Your task to perform on an android device: What is the recent news? Image 0: 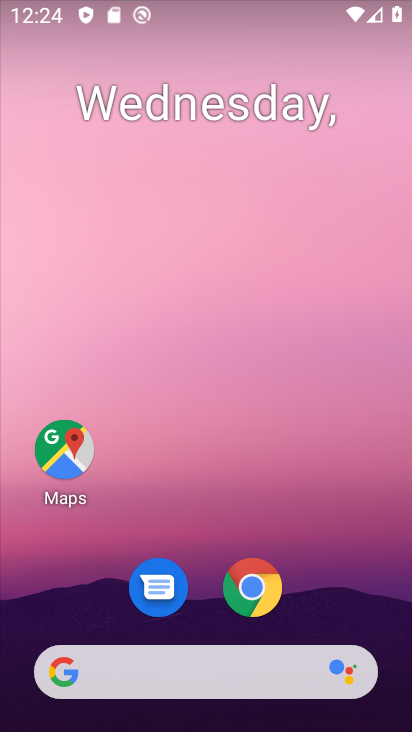
Step 0: drag from (302, 607) to (224, 332)
Your task to perform on an android device: What is the recent news? Image 1: 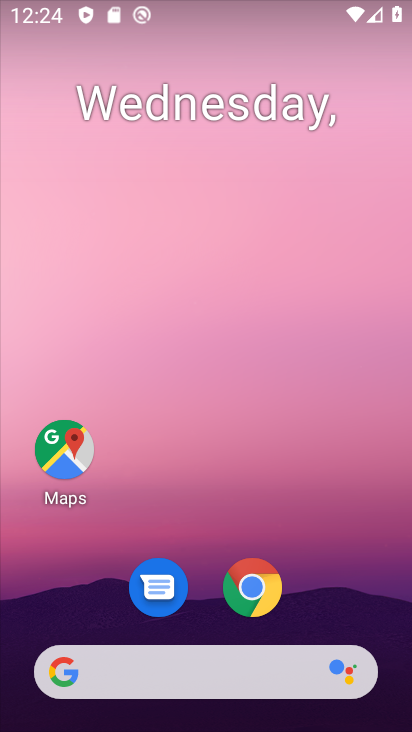
Step 1: click (233, 677)
Your task to perform on an android device: What is the recent news? Image 2: 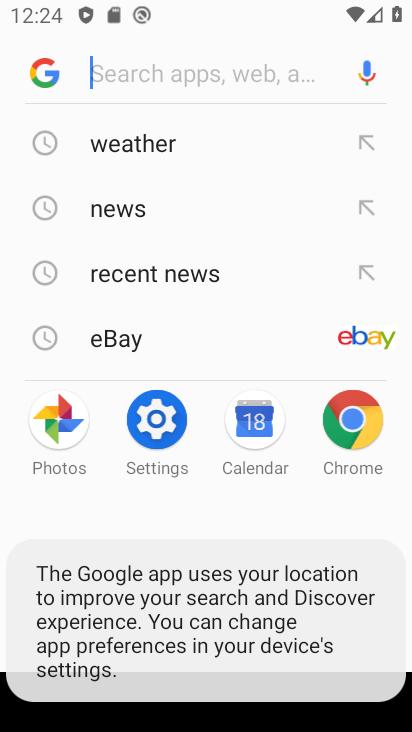
Step 2: click (46, 76)
Your task to perform on an android device: What is the recent news? Image 3: 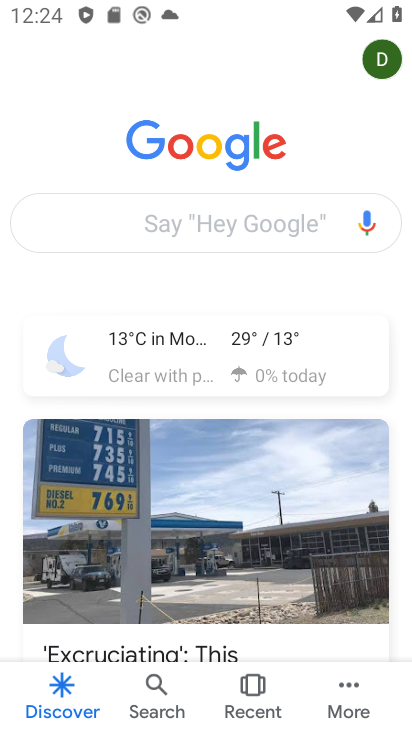
Step 3: click (74, 222)
Your task to perform on an android device: What is the recent news? Image 4: 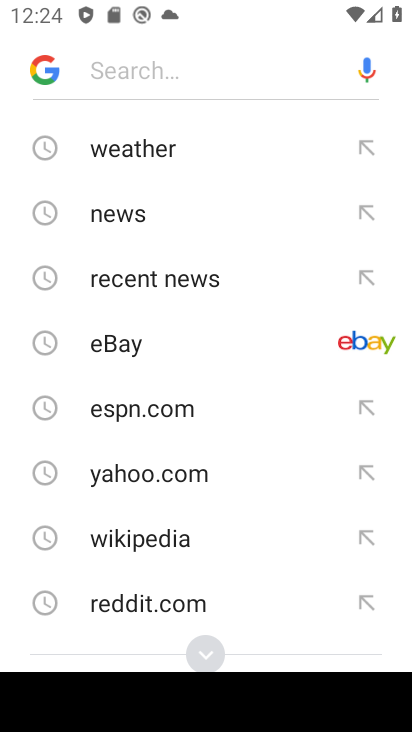
Step 4: click (154, 284)
Your task to perform on an android device: What is the recent news? Image 5: 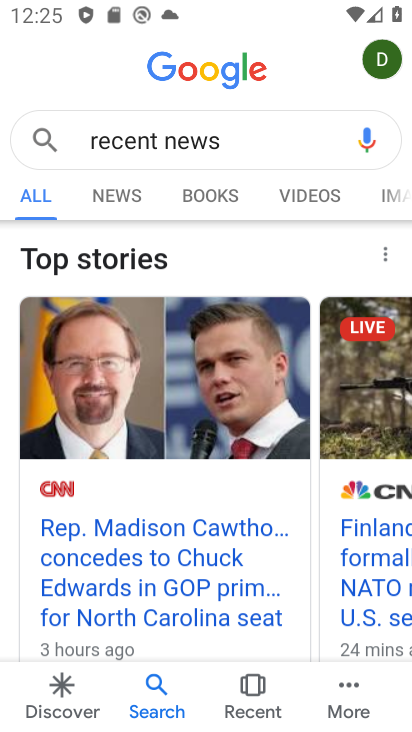
Step 5: task complete